Your task to perform on an android device: What's the weather going to be this weekend? Image 0: 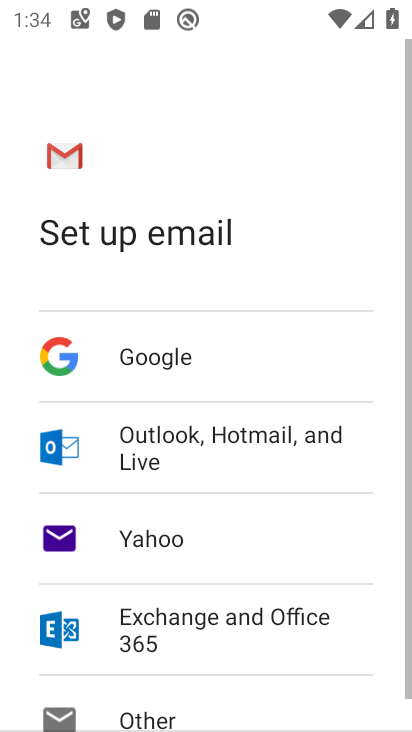
Step 0: press home button
Your task to perform on an android device: What's the weather going to be this weekend? Image 1: 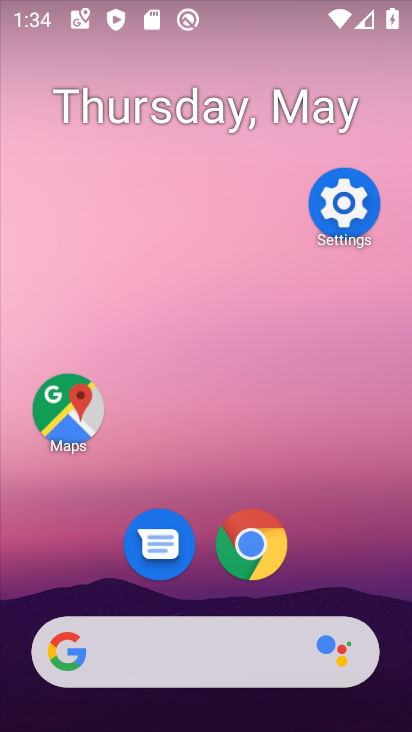
Step 1: click (273, 553)
Your task to perform on an android device: What's the weather going to be this weekend? Image 2: 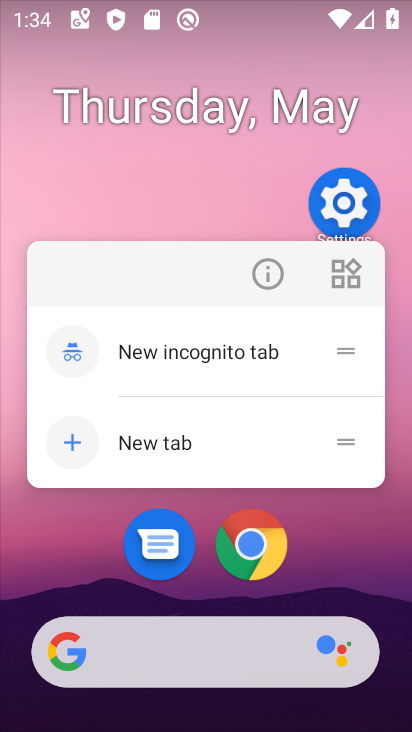
Step 2: click (265, 564)
Your task to perform on an android device: What's the weather going to be this weekend? Image 3: 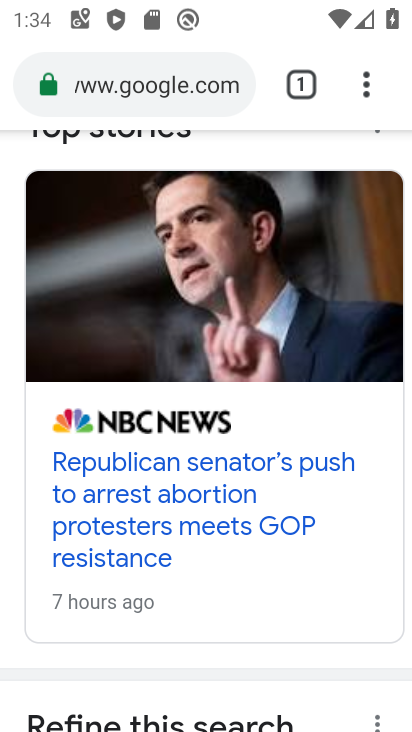
Step 3: click (144, 92)
Your task to perform on an android device: What's the weather going to be this weekend? Image 4: 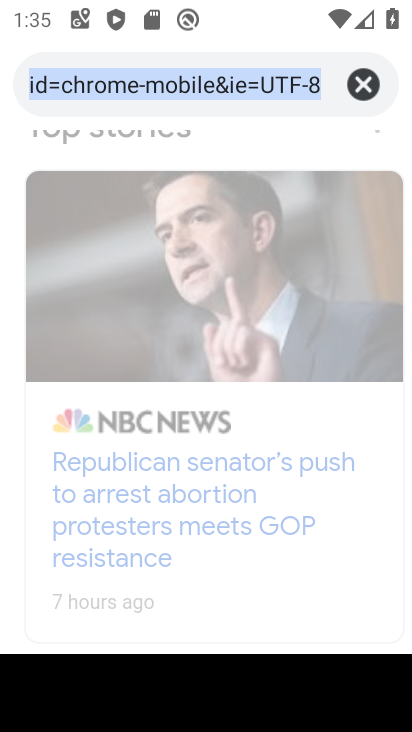
Step 4: type "whats the weather going to be this weekend"
Your task to perform on an android device: What's the weather going to be this weekend? Image 5: 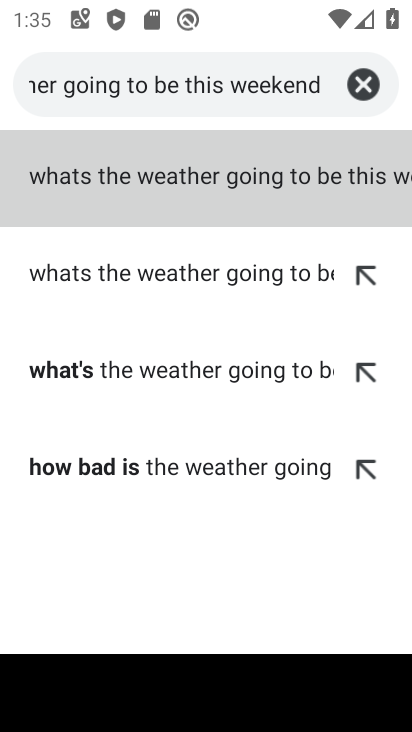
Step 5: click (241, 183)
Your task to perform on an android device: What's the weather going to be this weekend? Image 6: 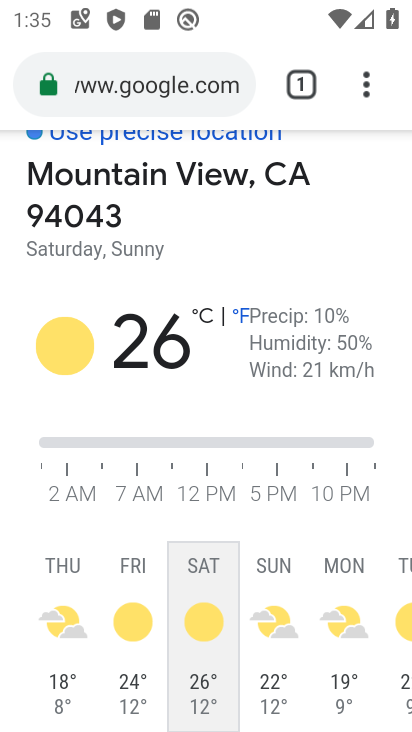
Step 6: task complete